Your task to perform on an android device: Open Google Maps Image 0: 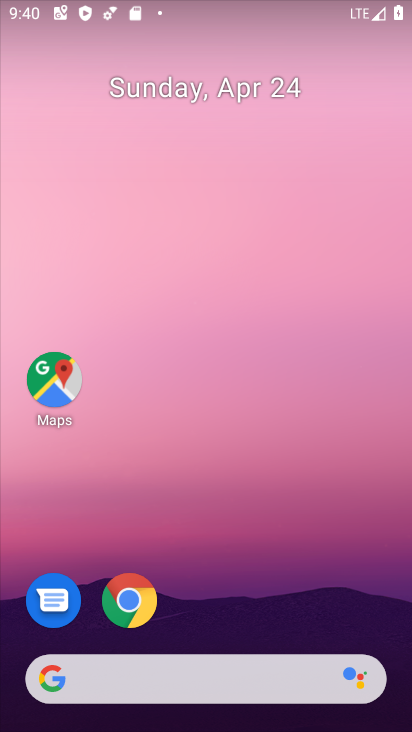
Step 0: click (52, 360)
Your task to perform on an android device: Open Google Maps Image 1: 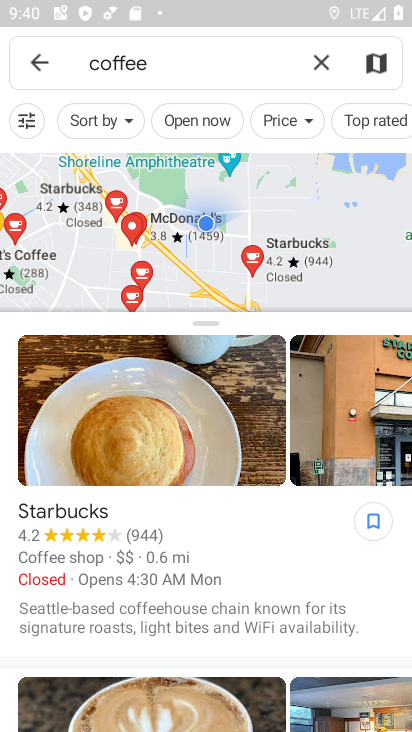
Step 1: task complete